Your task to perform on an android device: Go to eBay Image 0: 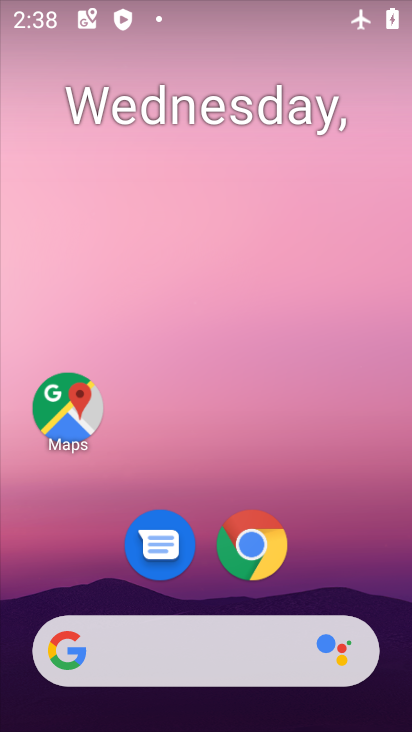
Step 0: click (247, 544)
Your task to perform on an android device: Go to eBay Image 1: 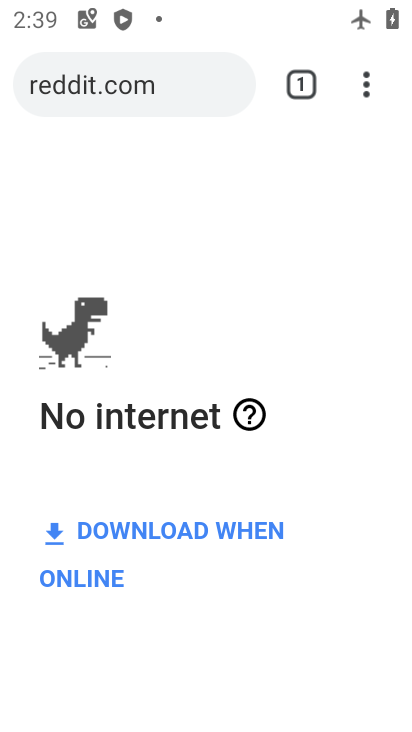
Step 1: click (148, 71)
Your task to perform on an android device: Go to eBay Image 2: 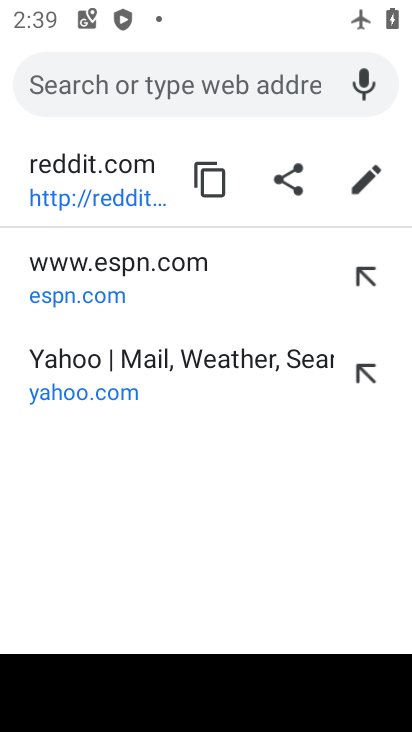
Step 2: type "ebay"
Your task to perform on an android device: Go to eBay Image 3: 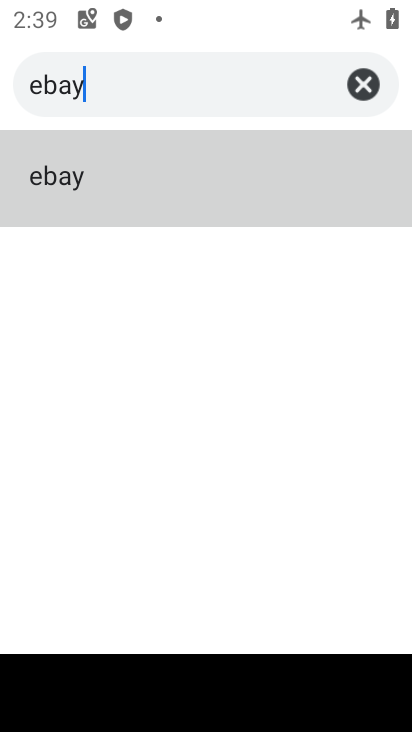
Step 3: click (60, 176)
Your task to perform on an android device: Go to eBay Image 4: 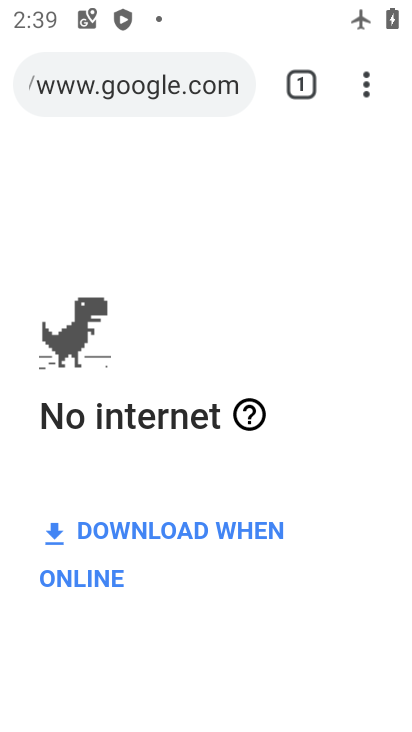
Step 4: task complete